Your task to perform on an android device: Open display settings Image 0: 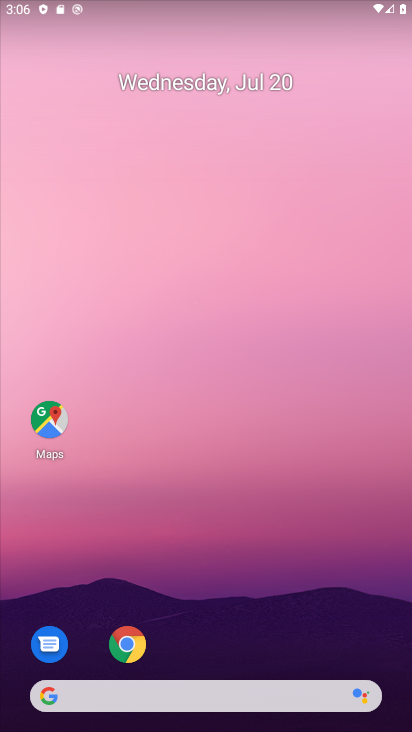
Step 0: drag from (35, 707) to (250, 213)
Your task to perform on an android device: Open display settings Image 1: 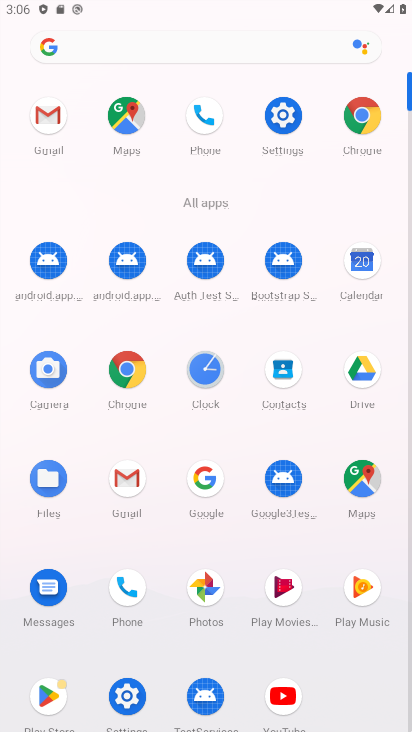
Step 1: click (115, 691)
Your task to perform on an android device: Open display settings Image 2: 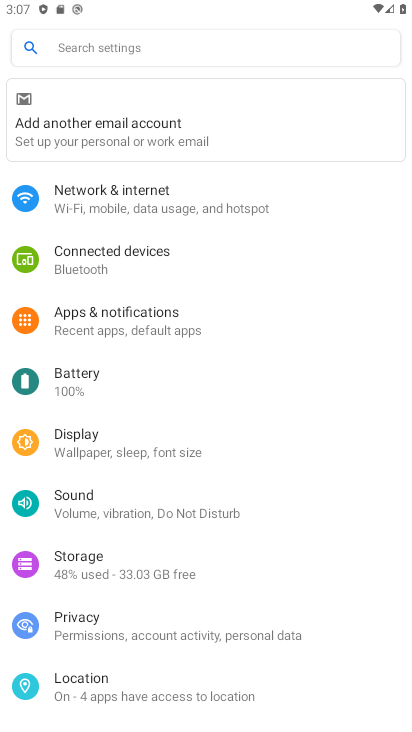
Step 2: click (67, 431)
Your task to perform on an android device: Open display settings Image 3: 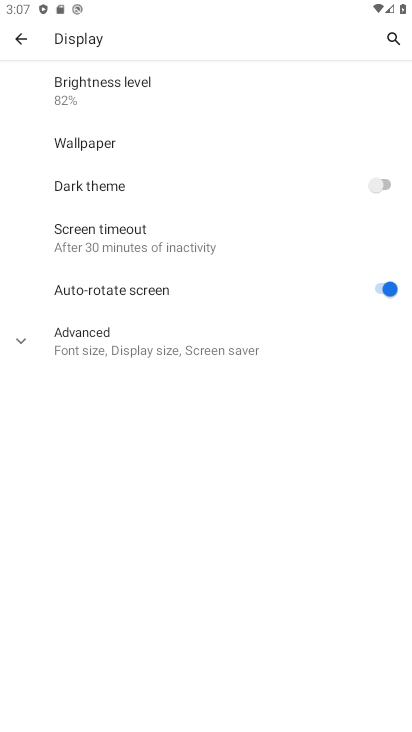
Step 3: task complete